Your task to perform on an android device: Open calendar and show me the third week of next month Image 0: 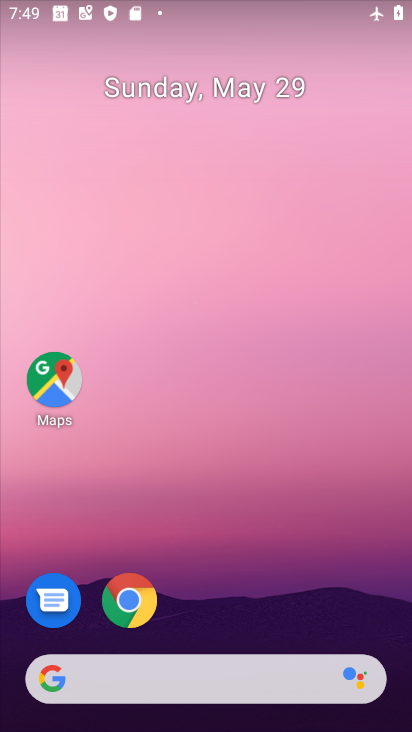
Step 0: drag from (203, 617) to (266, 3)
Your task to perform on an android device: Open calendar and show me the third week of next month Image 1: 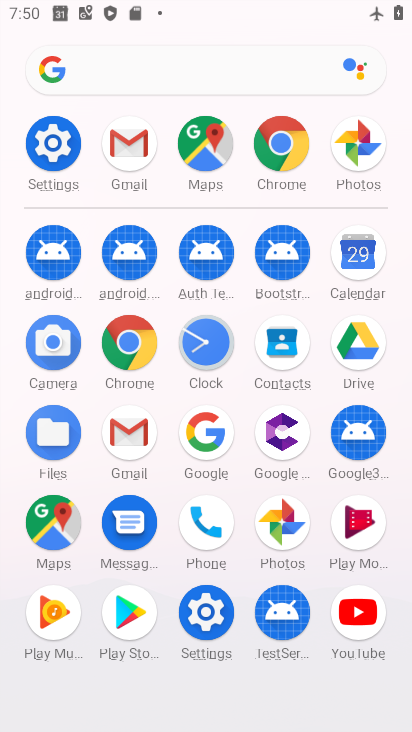
Step 1: click (367, 268)
Your task to perform on an android device: Open calendar and show me the third week of next month Image 2: 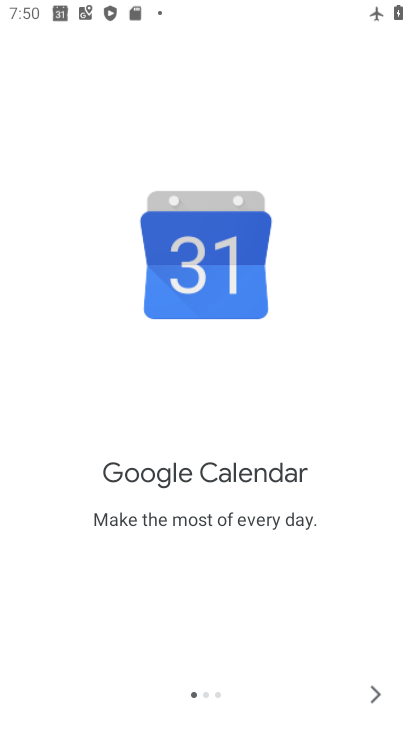
Step 2: click (386, 695)
Your task to perform on an android device: Open calendar and show me the third week of next month Image 3: 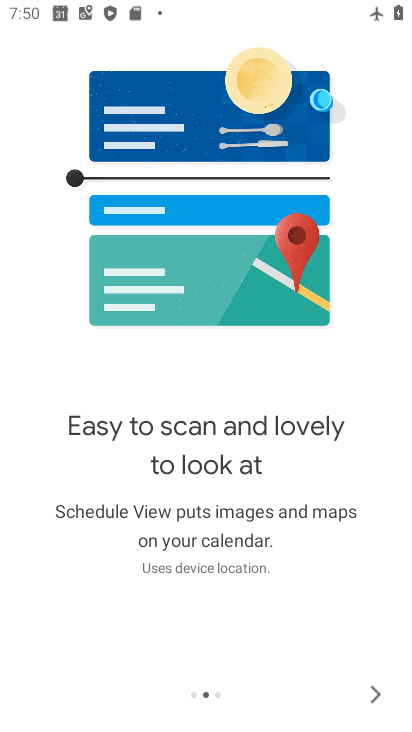
Step 3: click (367, 696)
Your task to perform on an android device: Open calendar and show me the third week of next month Image 4: 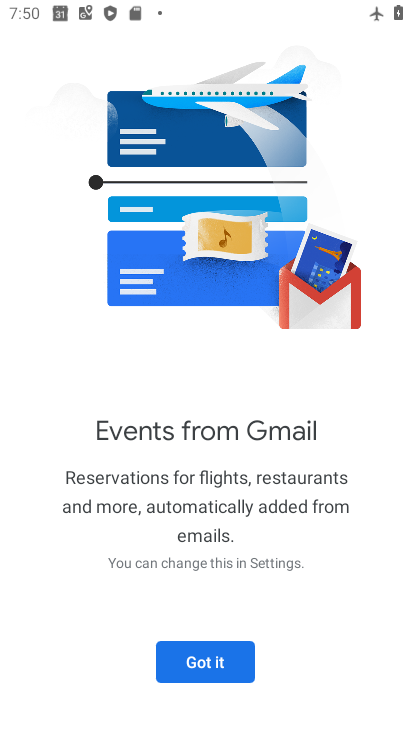
Step 4: click (211, 662)
Your task to perform on an android device: Open calendar and show me the third week of next month Image 5: 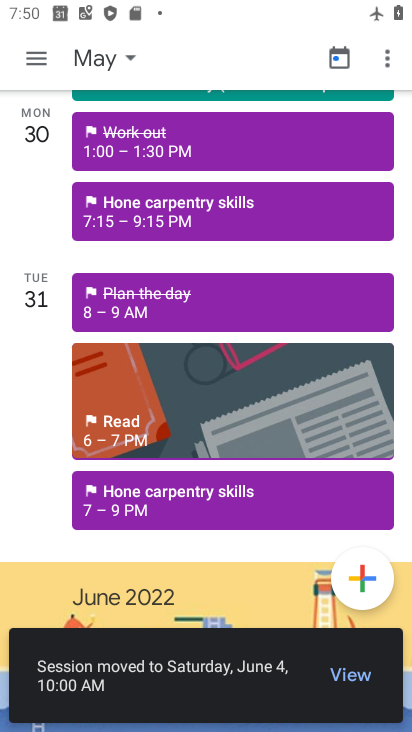
Step 5: click (38, 50)
Your task to perform on an android device: Open calendar and show me the third week of next month Image 6: 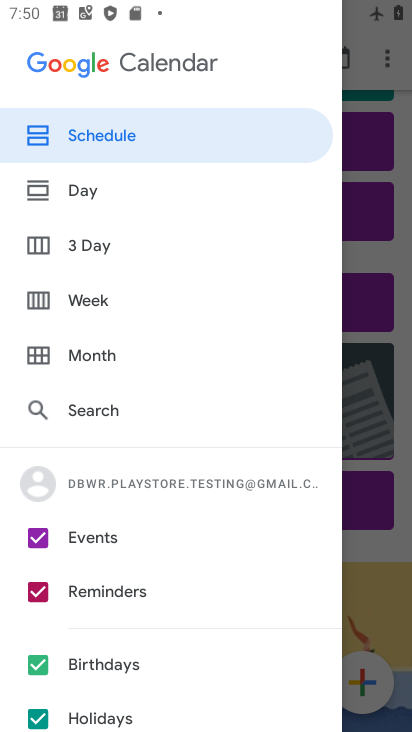
Step 6: click (118, 303)
Your task to perform on an android device: Open calendar and show me the third week of next month Image 7: 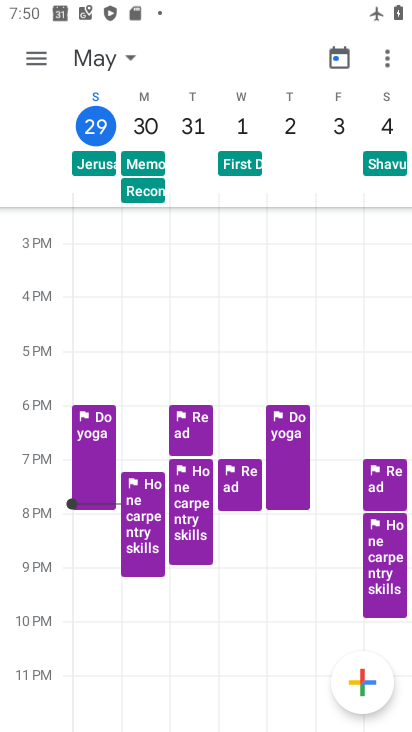
Step 7: task complete